Your task to perform on an android device: Open battery settings Image 0: 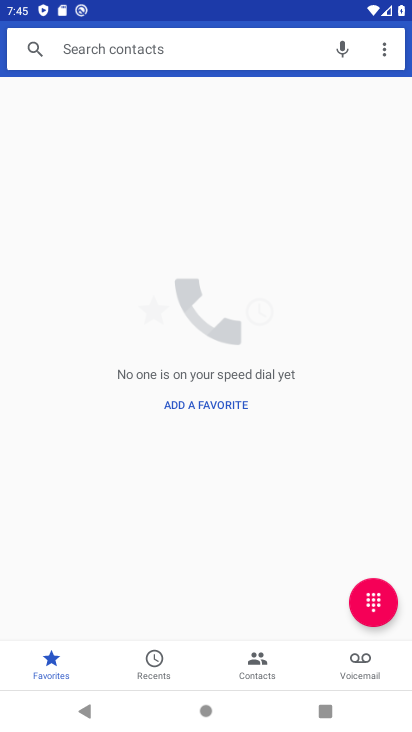
Step 0: press home button
Your task to perform on an android device: Open battery settings Image 1: 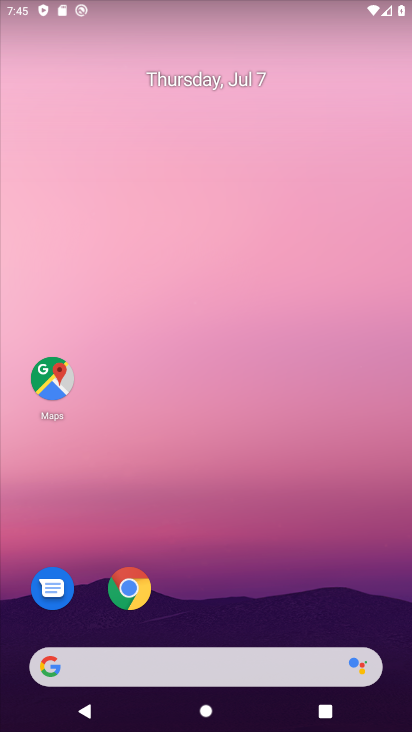
Step 1: drag from (123, 400) to (133, 132)
Your task to perform on an android device: Open battery settings Image 2: 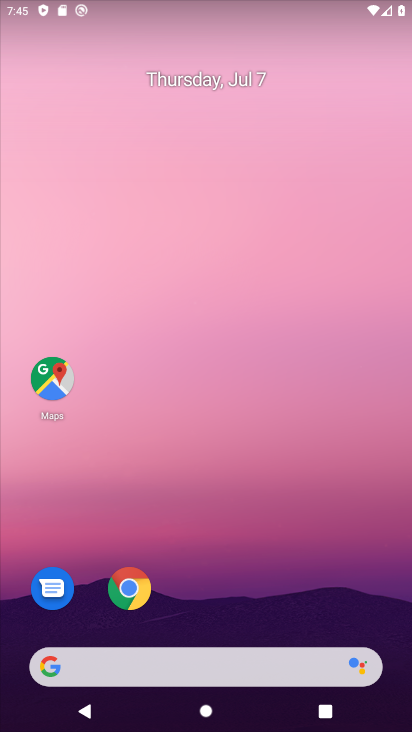
Step 2: drag from (88, 149) to (82, 27)
Your task to perform on an android device: Open battery settings Image 3: 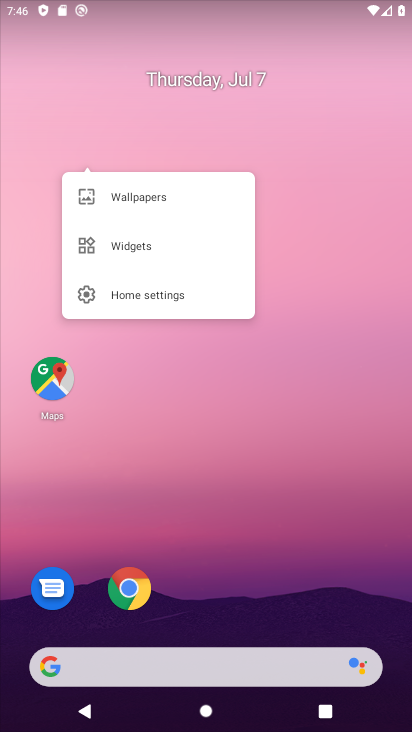
Step 3: drag from (61, 702) to (158, 39)
Your task to perform on an android device: Open battery settings Image 4: 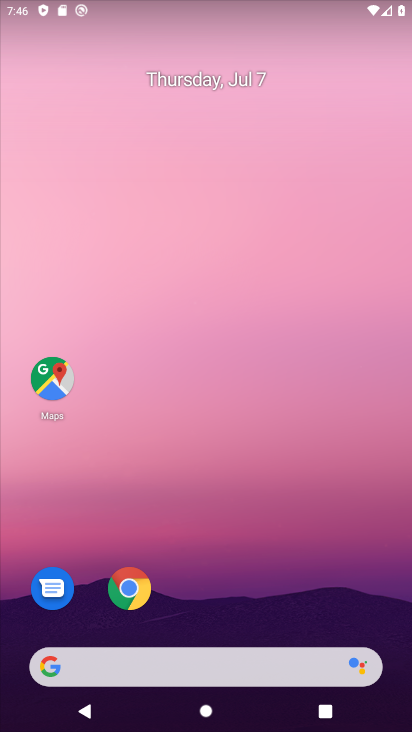
Step 4: drag from (48, 720) to (227, 49)
Your task to perform on an android device: Open battery settings Image 5: 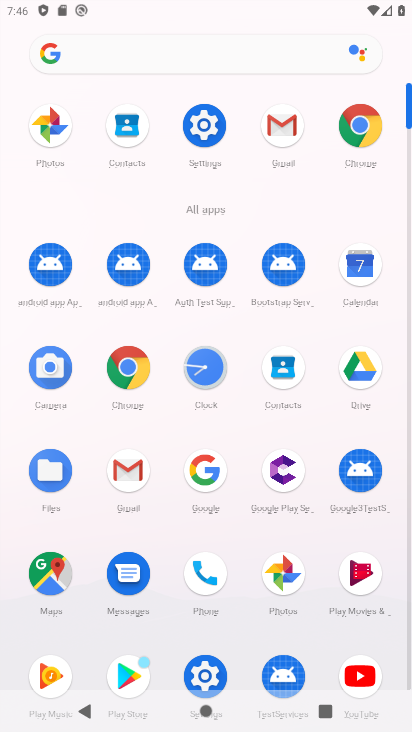
Step 5: click (200, 673)
Your task to perform on an android device: Open battery settings Image 6: 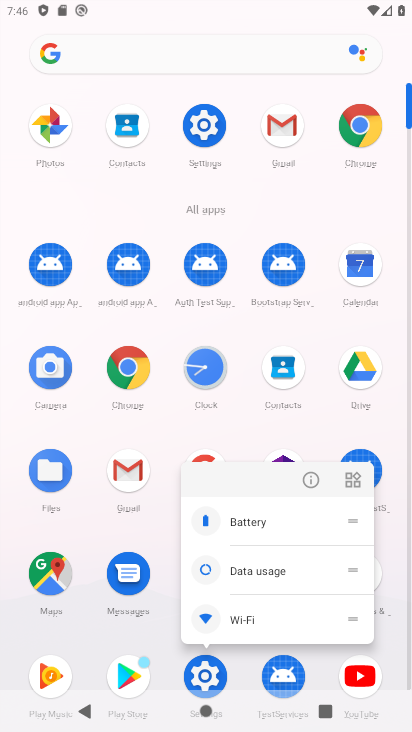
Step 6: click (235, 520)
Your task to perform on an android device: Open battery settings Image 7: 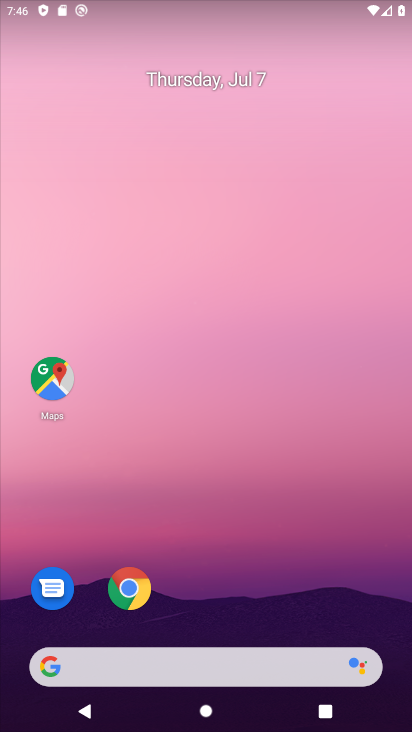
Step 7: drag from (51, 696) to (202, 12)
Your task to perform on an android device: Open battery settings Image 8: 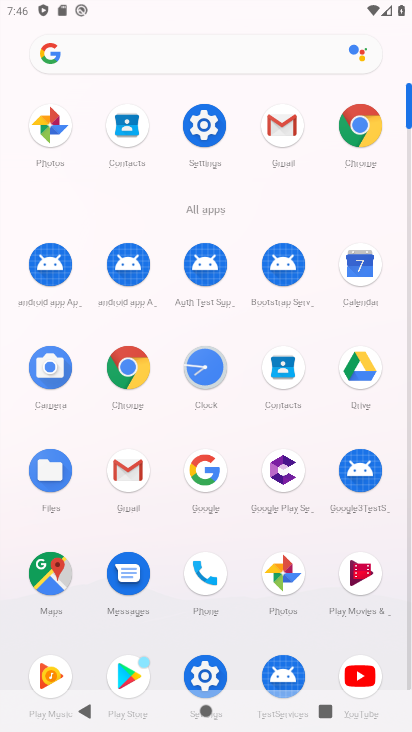
Step 8: click (204, 666)
Your task to perform on an android device: Open battery settings Image 9: 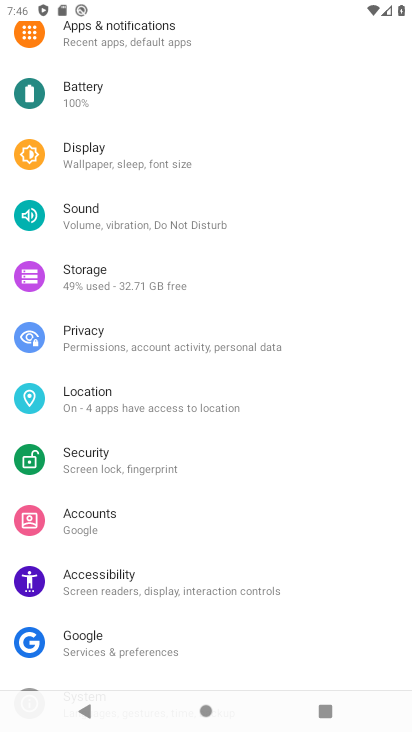
Step 9: click (76, 98)
Your task to perform on an android device: Open battery settings Image 10: 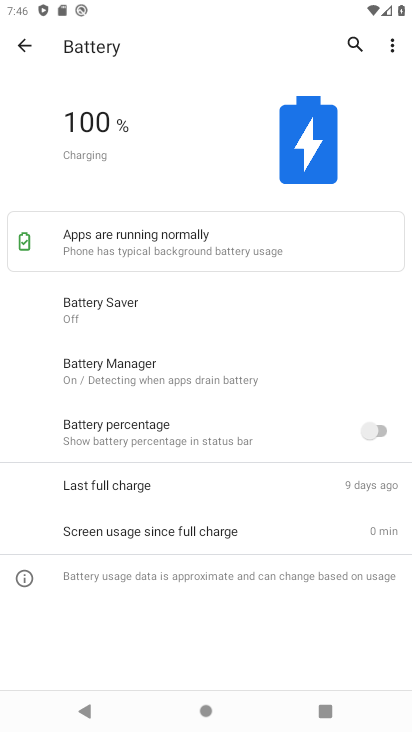
Step 10: task complete